Your task to perform on an android device: open a bookmark in the chrome app Image 0: 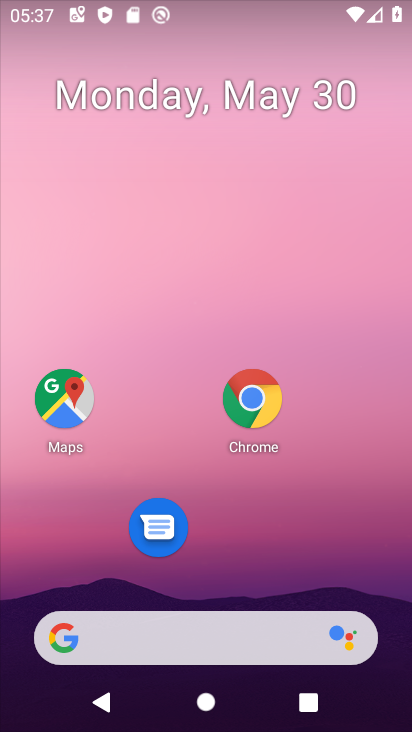
Step 0: click (250, 405)
Your task to perform on an android device: open a bookmark in the chrome app Image 1: 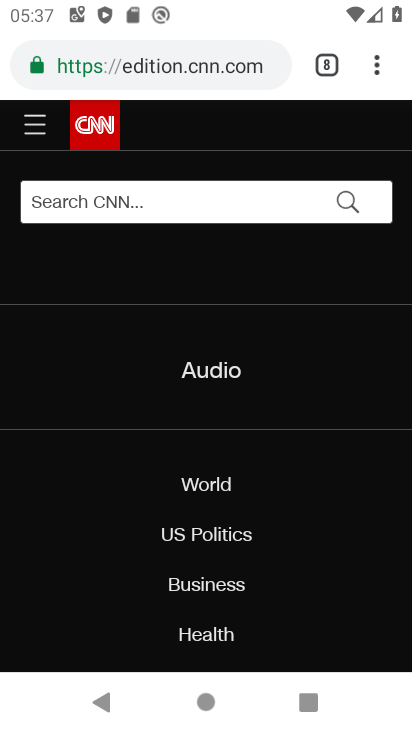
Step 1: click (378, 70)
Your task to perform on an android device: open a bookmark in the chrome app Image 2: 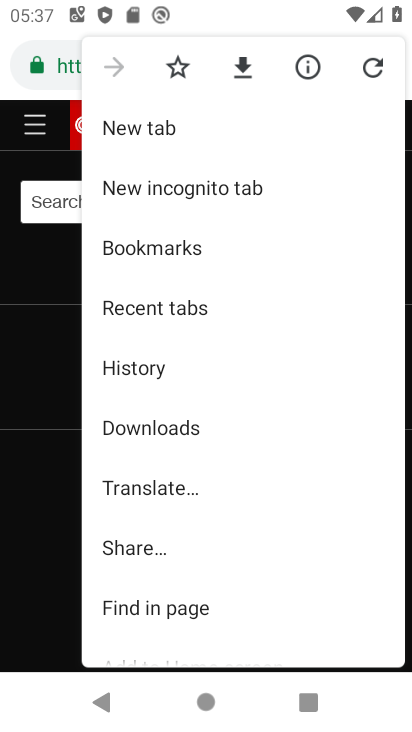
Step 2: click (164, 246)
Your task to perform on an android device: open a bookmark in the chrome app Image 3: 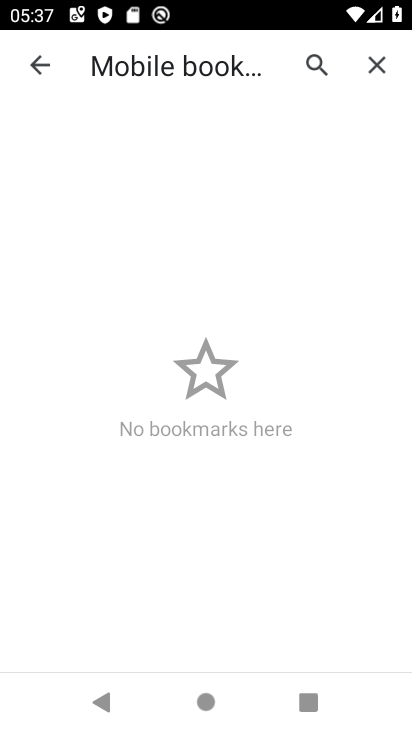
Step 3: task complete